Your task to perform on an android device: toggle javascript in the chrome app Image 0: 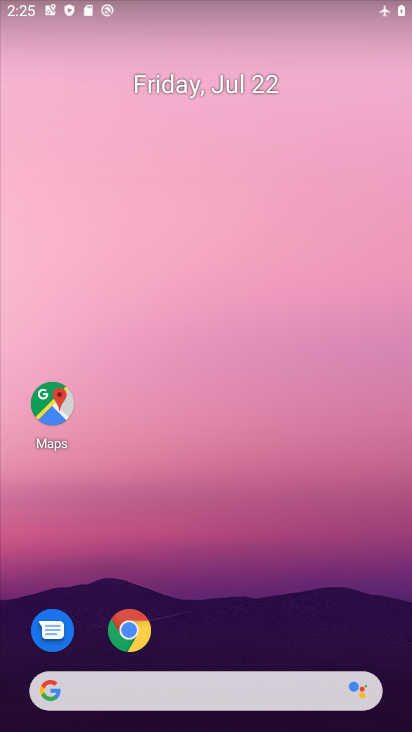
Step 0: drag from (243, 32) to (290, 0)
Your task to perform on an android device: toggle javascript in the chrome app Image 1: 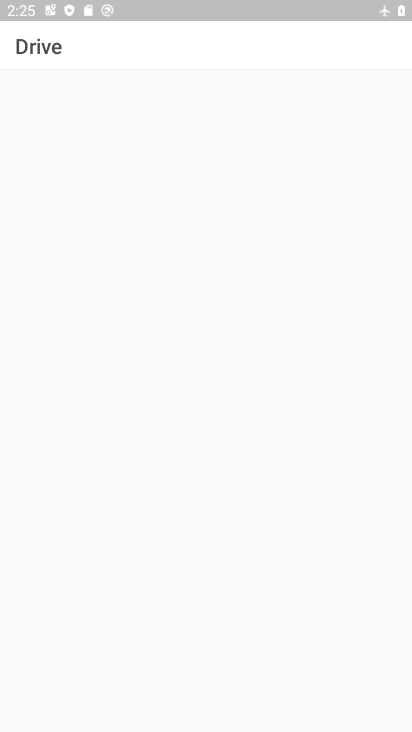
Step 1: press home button
Your task to perform on an android device: toggle javascript in the chrome app Image 2: 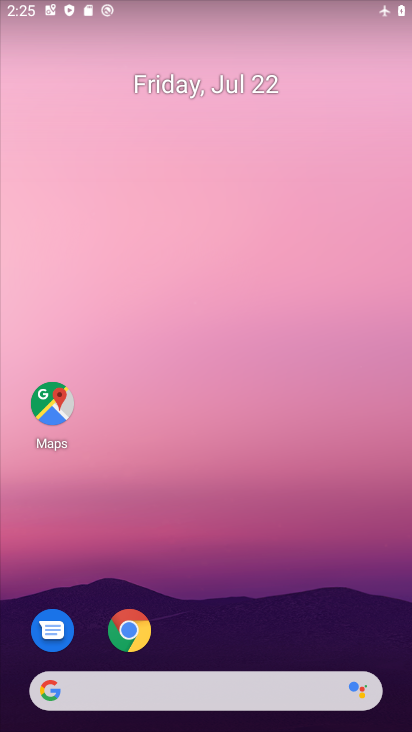
Step 2: click (158, 625)
Your task to perform on an android device: toggle javascript in the chrome app Image 3: 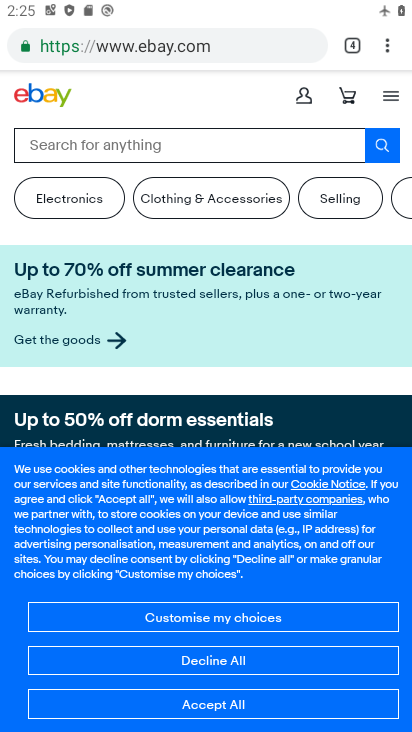
Step 3: drag from (386, 44) to (247, 511)
Your task to perform on an android device: toggle javascript in the chrome app Image 4: 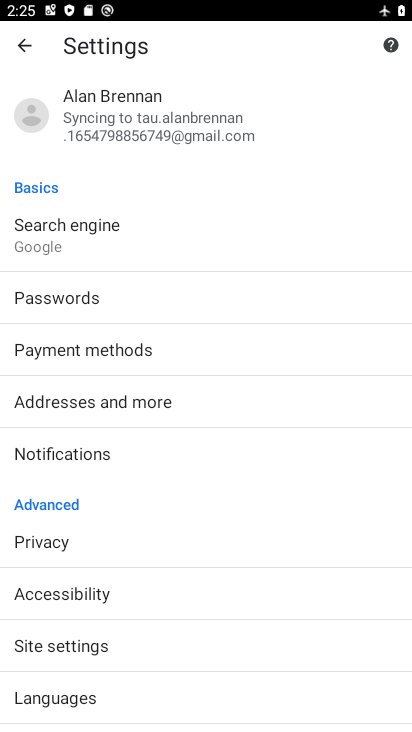
Step 4: click (93, 631)
Your task to perform on an android device: toggle javascript in the chrome app Image 5: 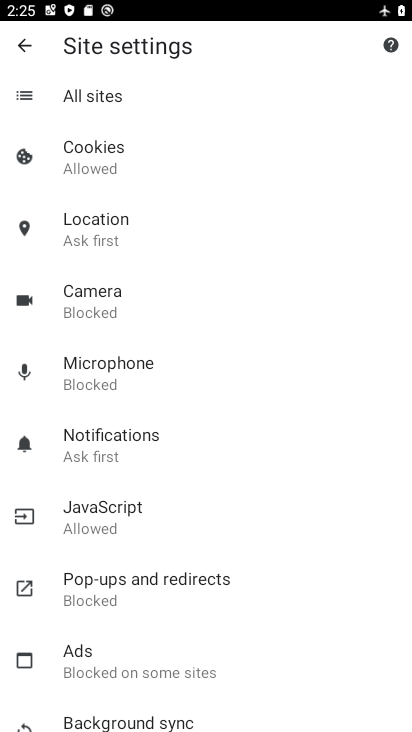
Step 5: click (110, 532)
Your task to perform on an android device: toggle javascript in the chrome app Image 6: 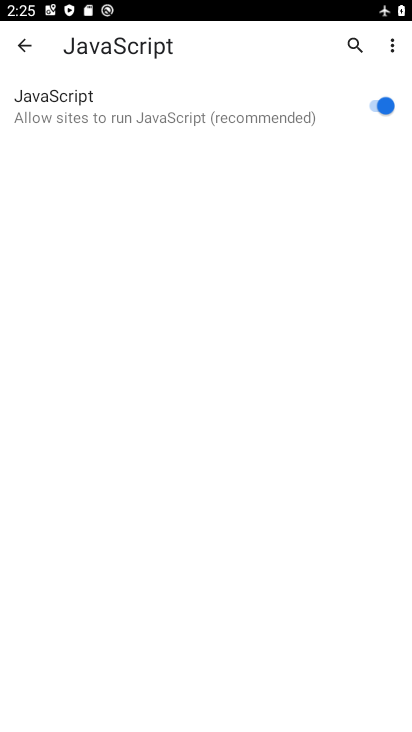
Step 6: click (365, 94)
Your task to perform on an android device: toggle javascript in the chrome app Image 7: 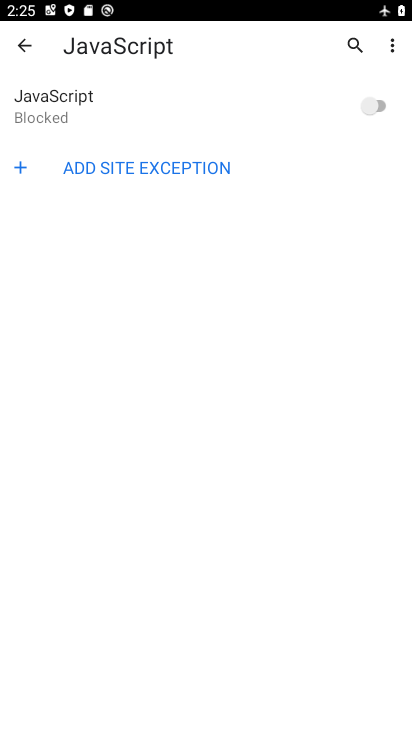
Step 7: task complete